Your task to perform on an android device: delete the emails in spam in the gmail app Image 0: 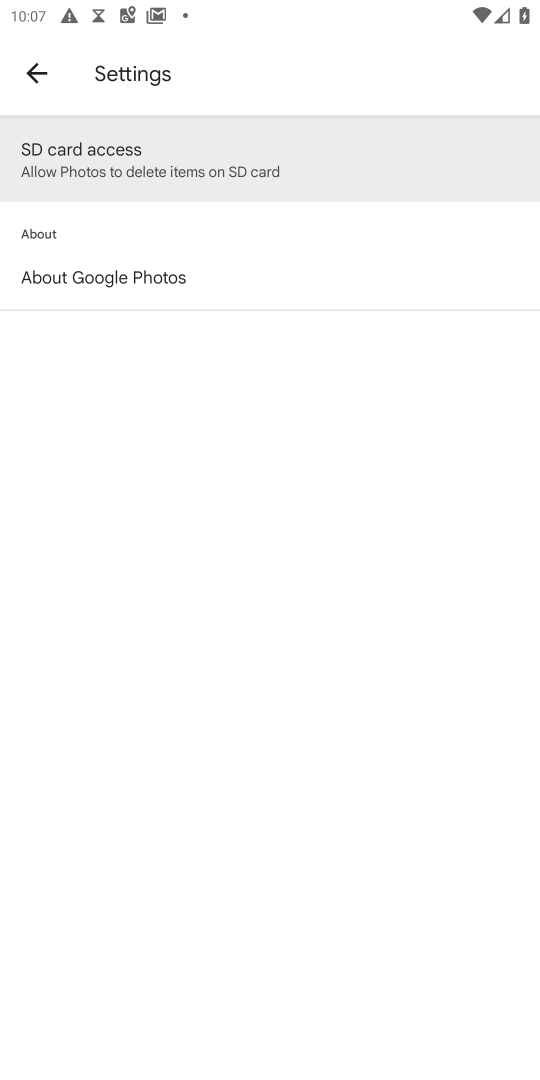
Step 0: press home button
Your task to perform on an android device: delete the emails in spam in the gmail app Image 1: 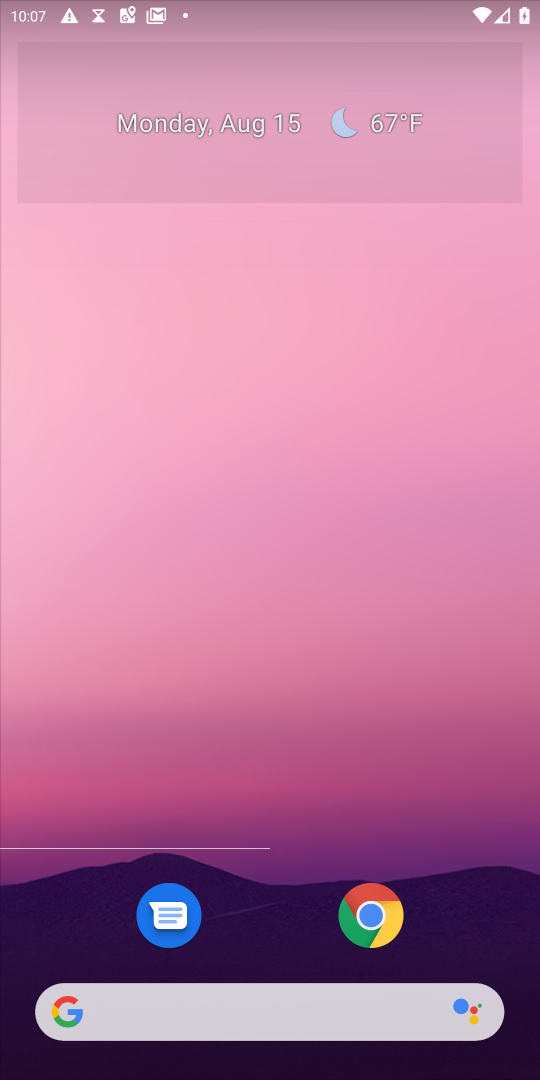
Step 1: drag from (289, 930) to (300, 138)
Your task to perform on an android device: delete the emails in spam in the gmail app Image 2: 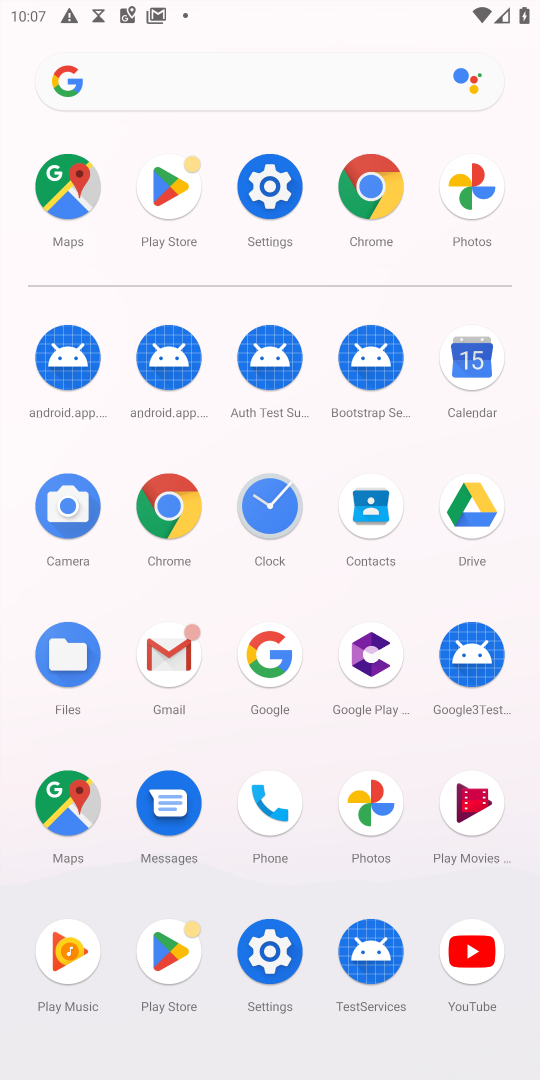
Step 2: click (168, 643)
Your task to perform on an android device: delete the emails in spam in the gmail app Image 3: 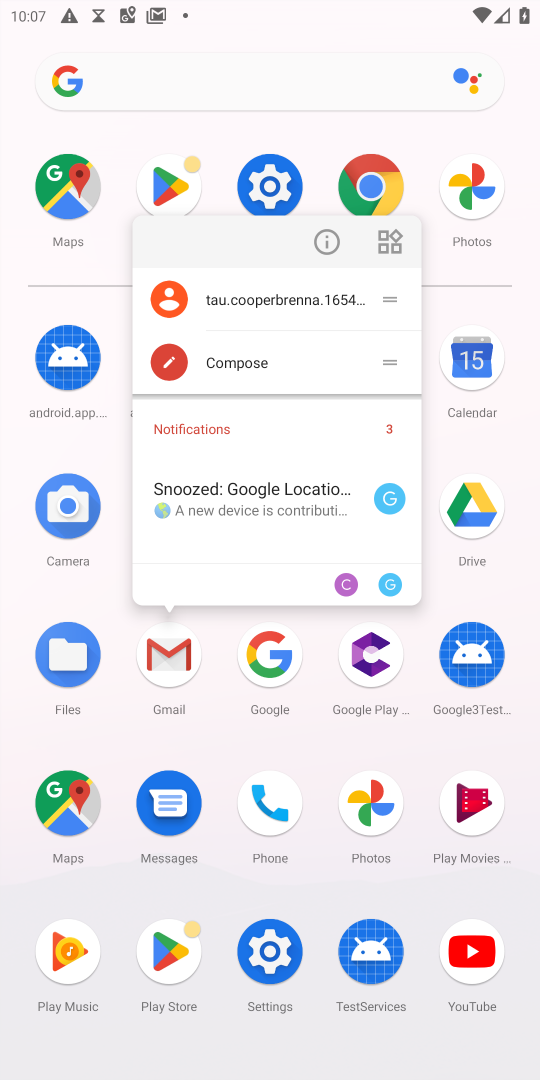
Step 3: click (162, 653)
Your task to perform on an android device: delete the emails in spam in the gmail app Image 4: 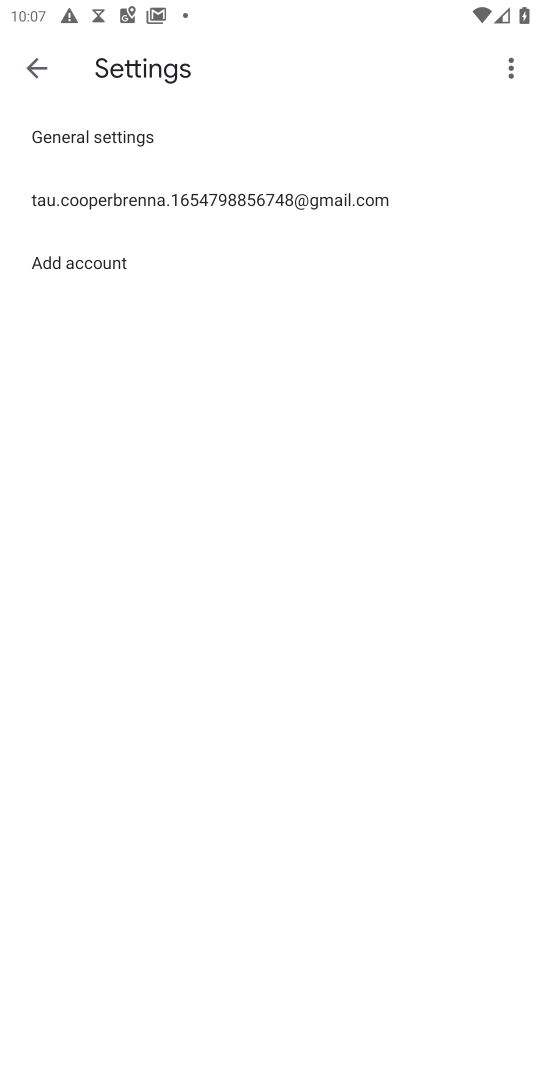
Step 4: click (29, 68)
Your task to perform on an android device: delete the emails in spam in the gmail app Image 5: 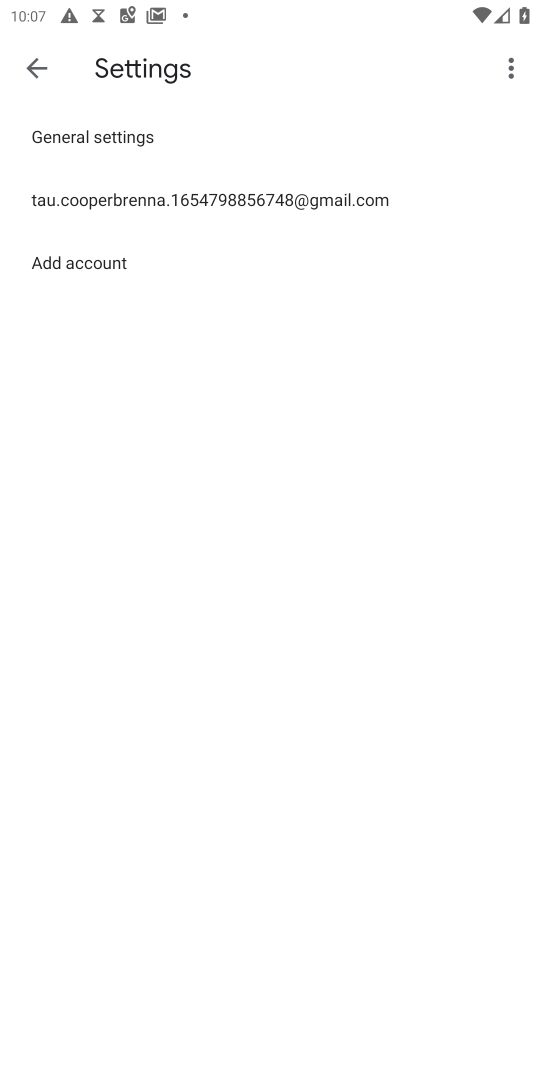
Step 5: click (29, 68)
Your task to perform on an android device: delete the emails in spam in the gmail app Image 6: 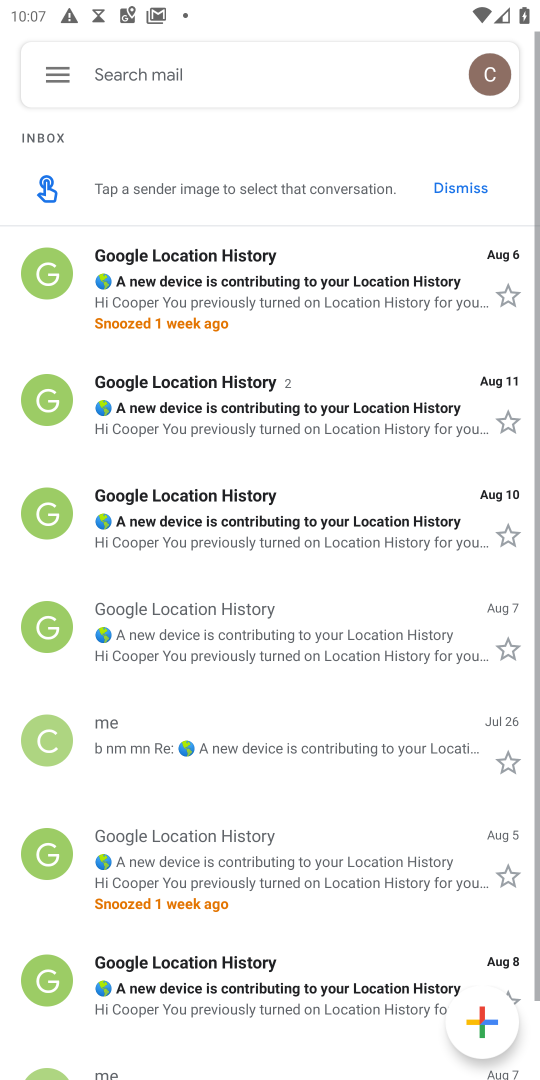
Step 6: click (49, 69)
Your task to perform on an android device: delete the emails in spam in the gmail app Image 7: 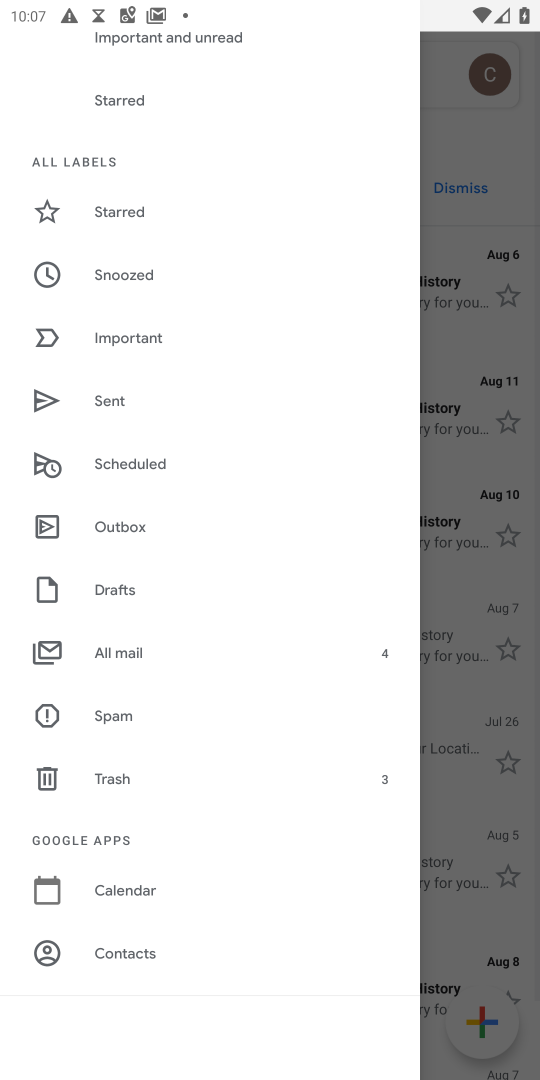
Step 7: click (115, 718)
Your task to perform on an android device: delete the emails in spam in the gmail app Image 8: 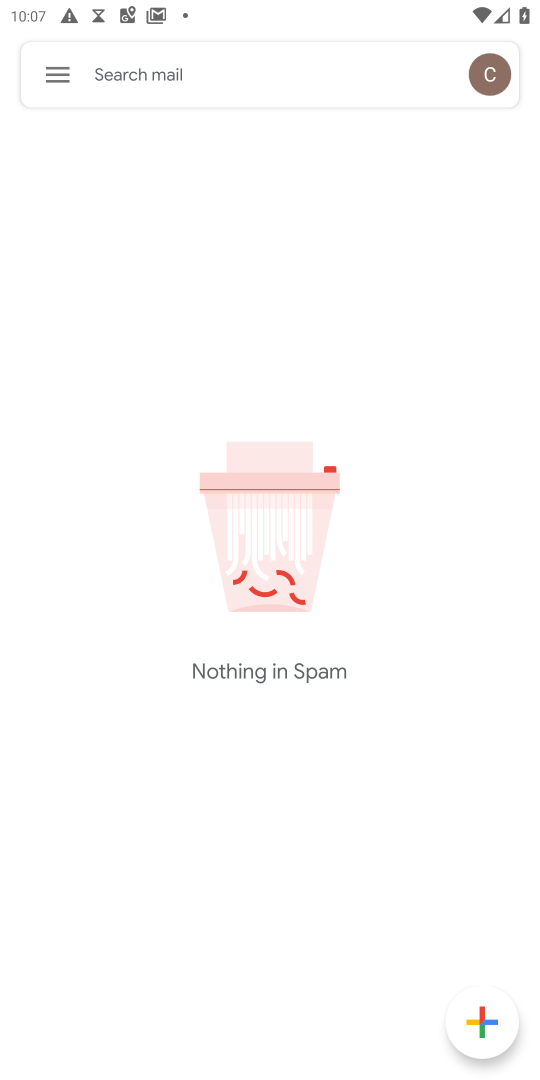
Step 8: task complete